Your task to perform on an android device: open chrome privacy settings Image 0: 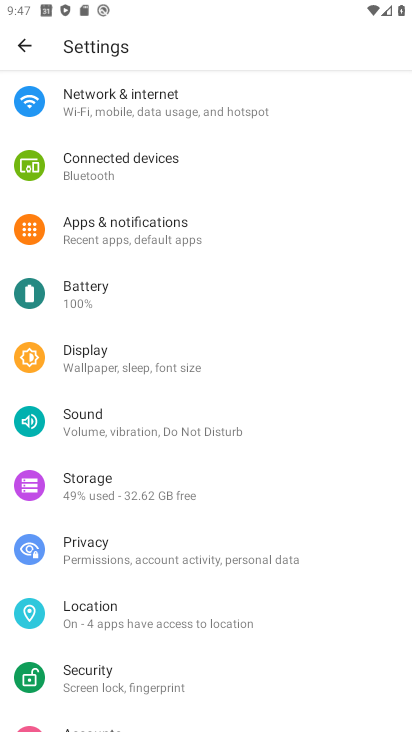
Step 0: press home button
Your task to perform on an android device: open chrome privacy settings Image 1: 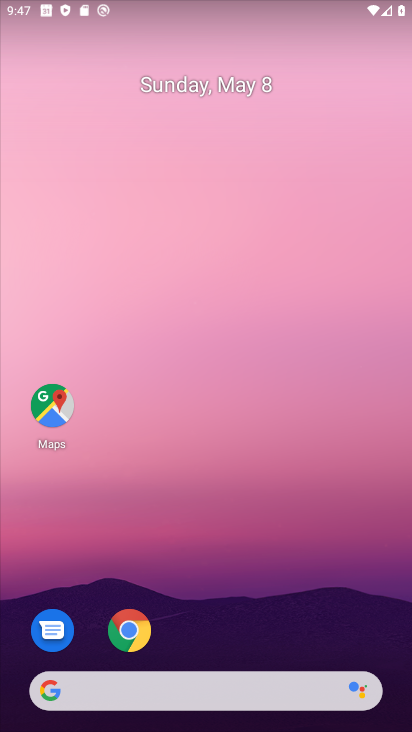
Step 1: click (119, 634)
Your task to perform on an android device: open chrome privacy settings Image 2: 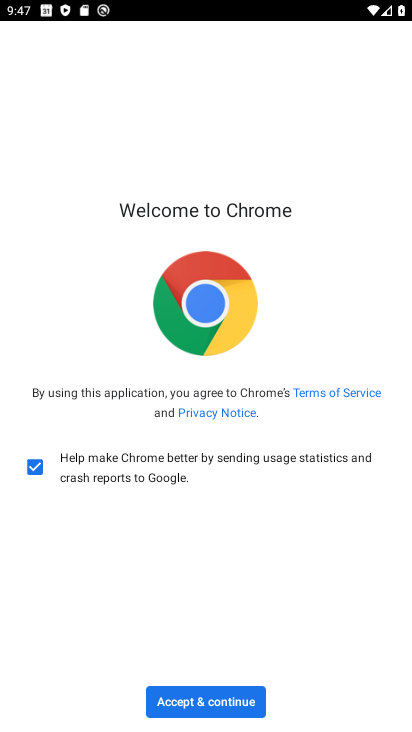
Step 2: click (243, 702)
Your task to perform on an android device: open chrome privacy settings Image 3: 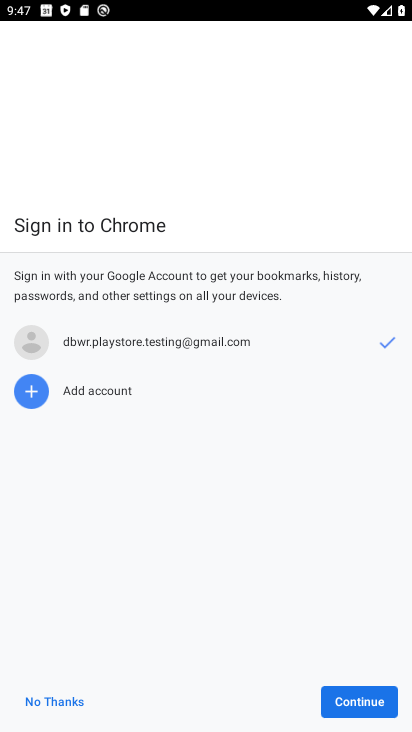
Step 3: click (348, 701)
Your task to perform on an android device: open chrome privacy settings Image 4: 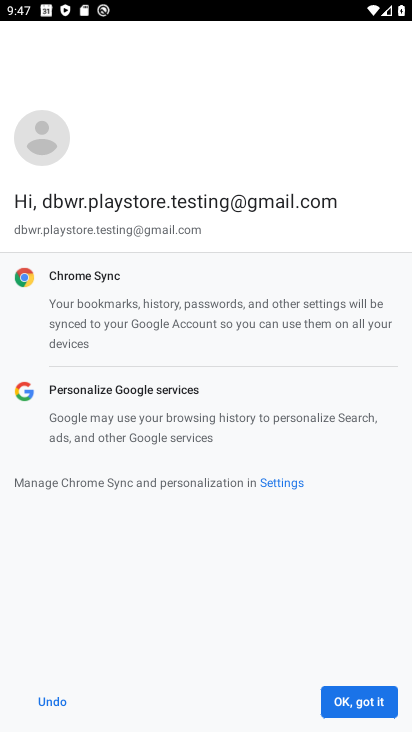
Step 4: click (349, 702)
Your task to perform on an android device: open chrome privacy settings Image 5: 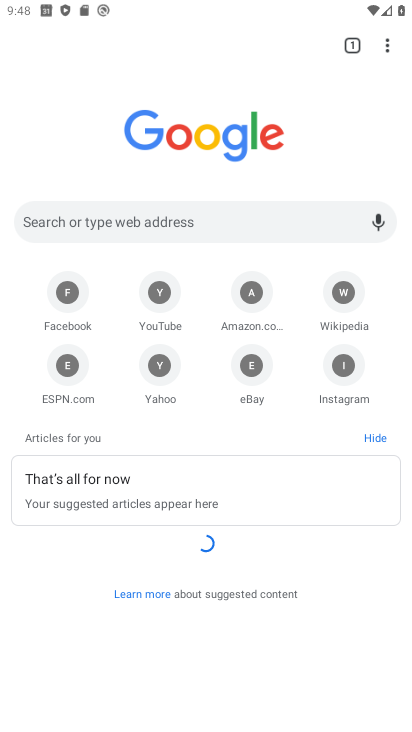
Step 5: click (388, 49)
Your task to perform on an android device: open chrome privacy settings Image 6: 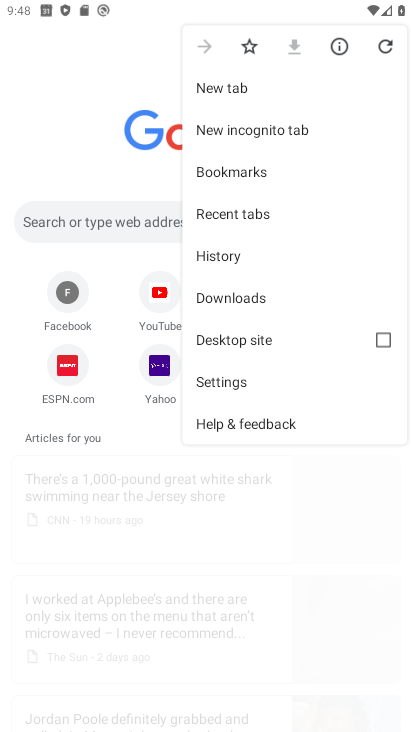
Step 6: click (238, 378)
Your task to perform on an android device: open chrome privacy settings Image 7: 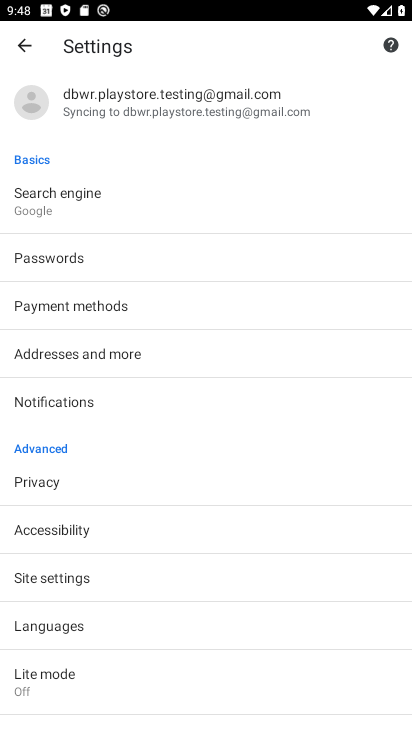
Step 7: click (76, 475)
Your task to perform on an android device: open chrome privacy settings Image 8: 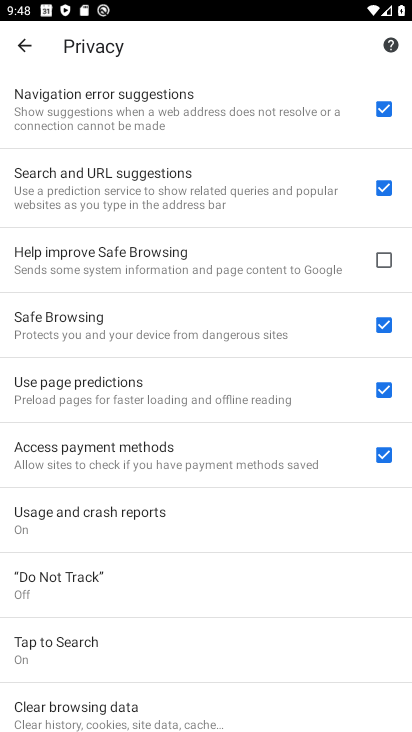
Step 8: task complete